Your task to perform on an android device: allow cookies in the chrome app Image 0: 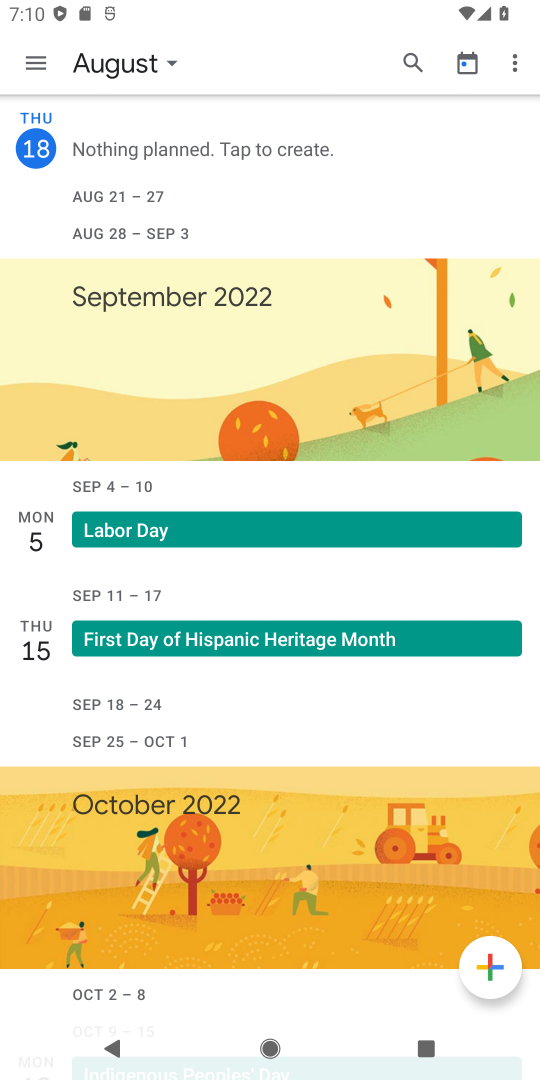
Step 0: press home button
Your task to perform on an android device: allow cookies in the chrome app Image 1: 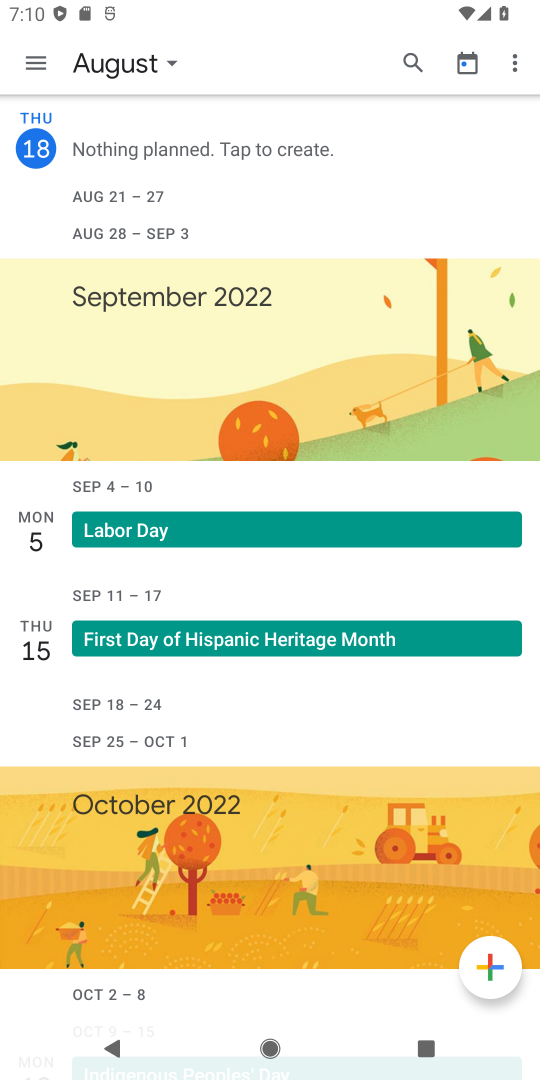
Step 1: press home button
Your task to perform on an android device: allow cookies in the chrome app Image 2: 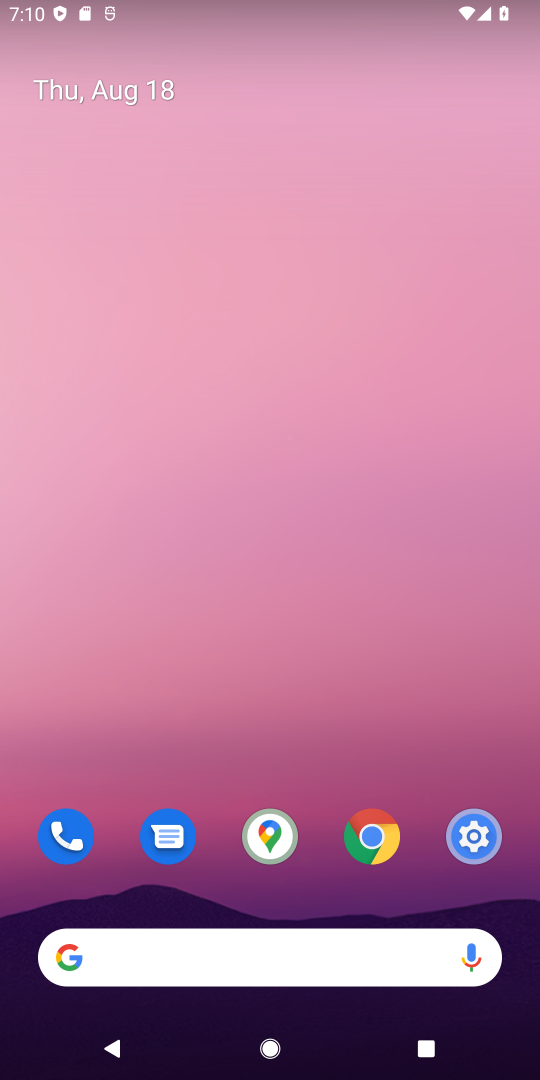
Step 2: drag from (349, 747) to (336, 85)
Your task to perform on an android device: allow cookies in the chrome app Image 3: 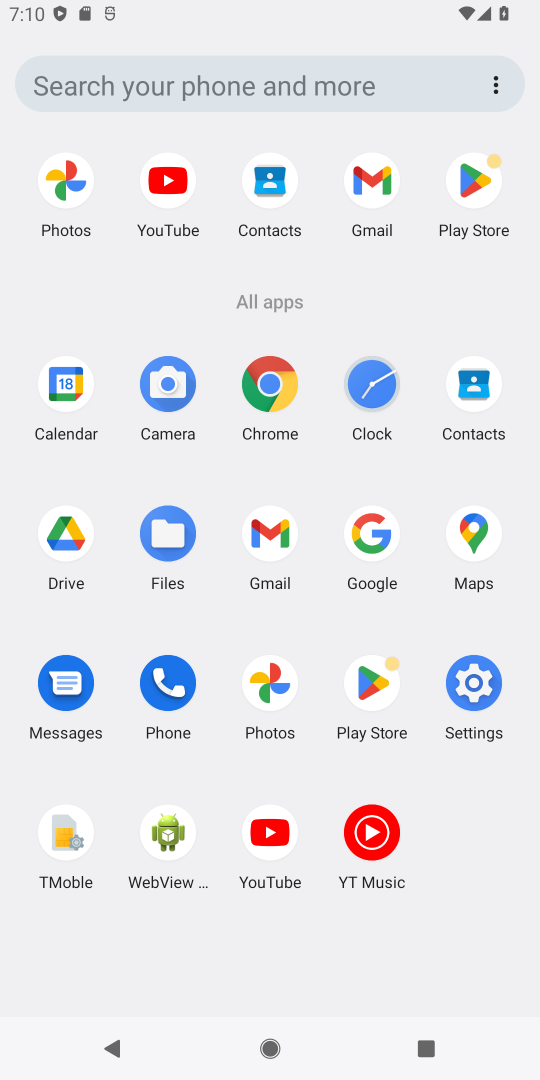
Step 3: click (267, 390)
Your task to perform on an android device: allow cookies in the chrome app Image 4: 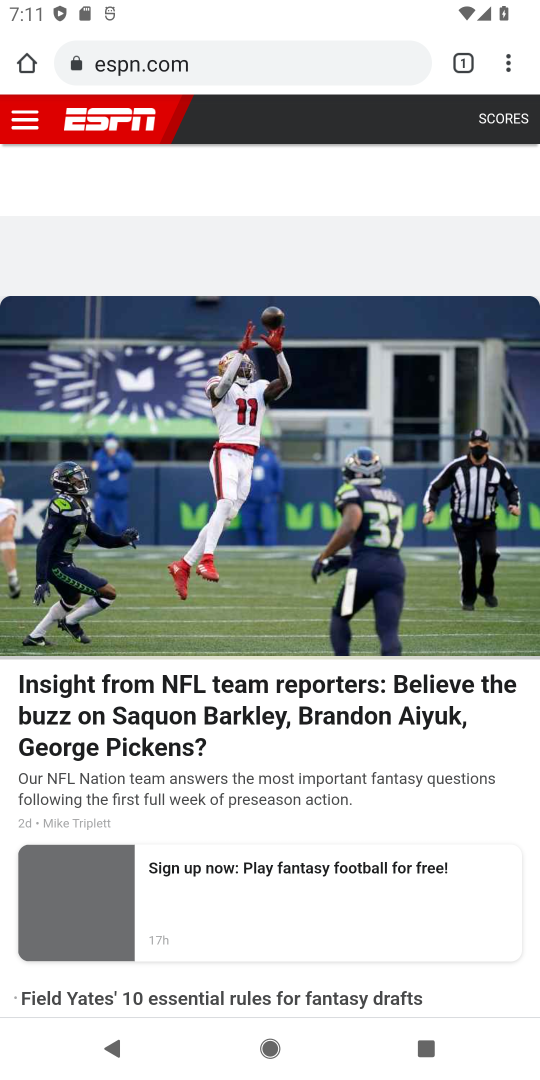
Step 4: drag from (496, 61) to (334, 236)
Your task to perform on an android device: allow cookies in the chrome app Image 5: 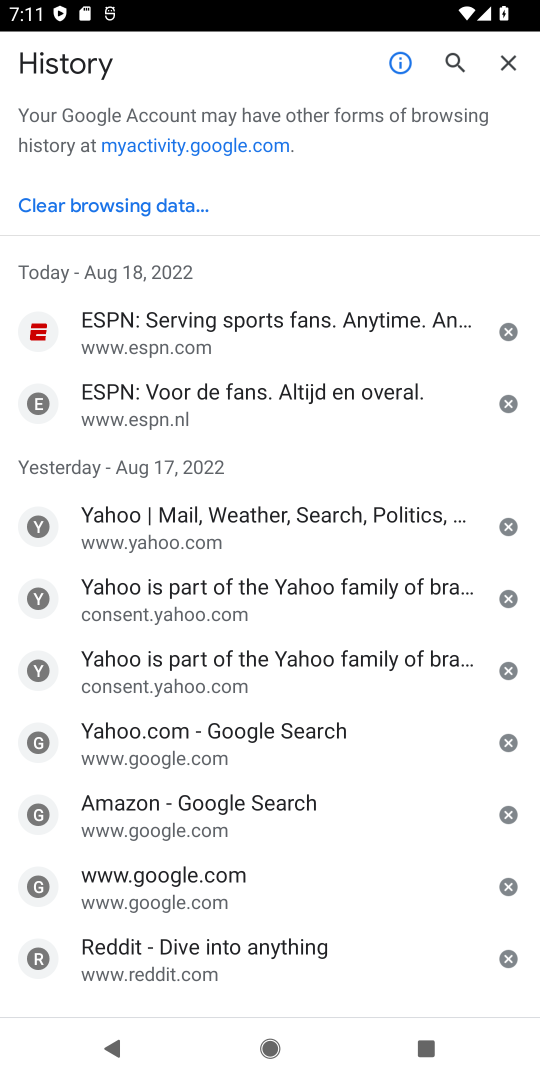
Step 5: click (115, 192)
Your task to perform on an android device: allow cookies in the chrome app Image 6: 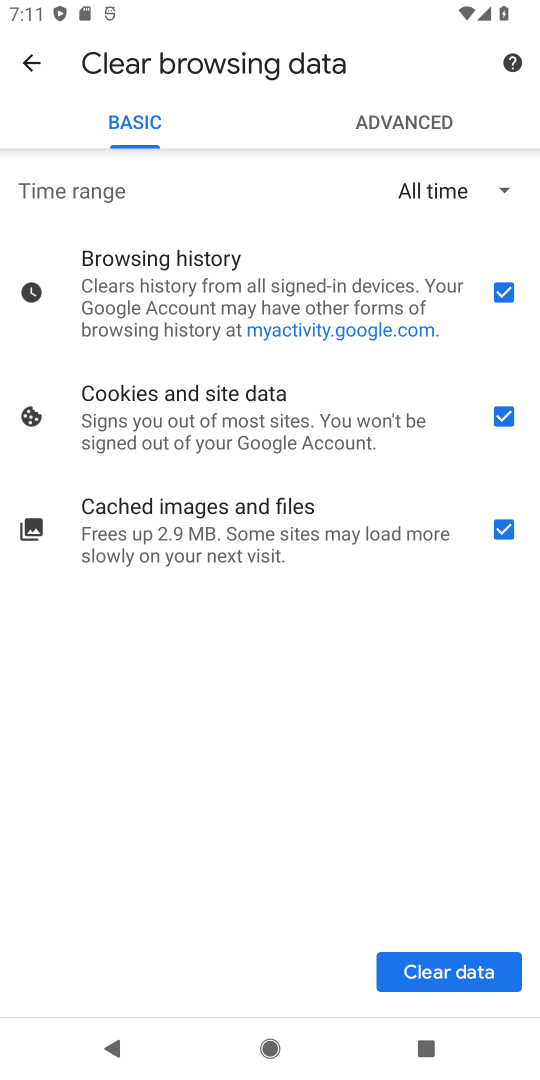
Step 6: click (490, 958)
Your task to perform on an android device: allow cookies in the chrome app Image 7: 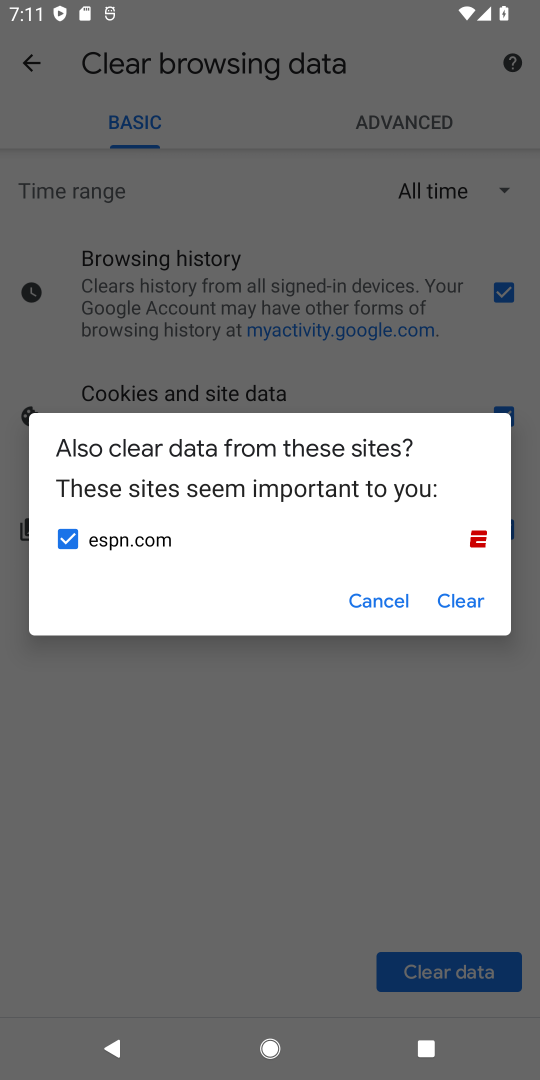
Step 7: click (449, 587)
Your task to perform on an android device: allow cookies in the chrome app Image 8: 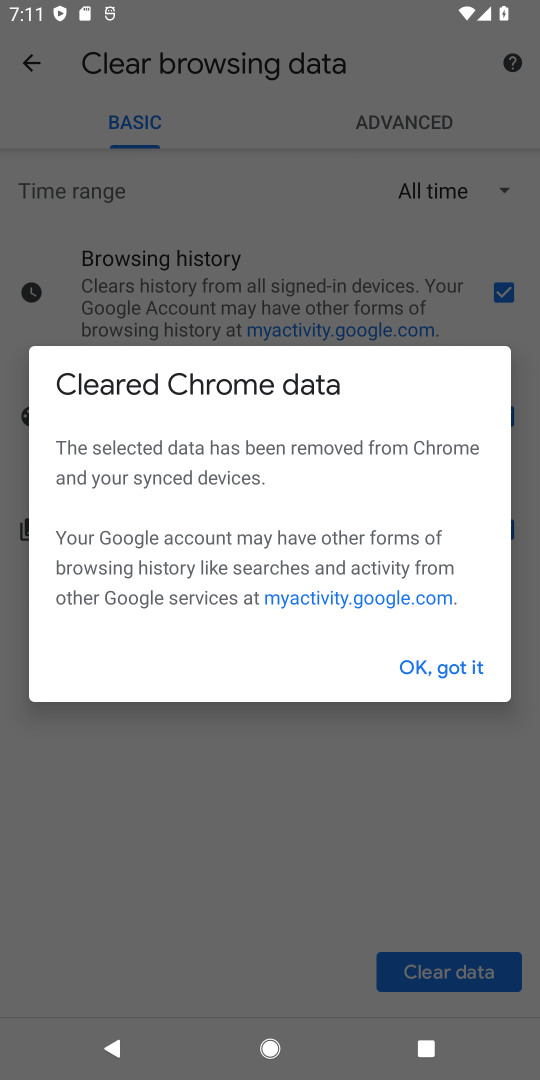
Step 8: task complete